Your task to perform on an android device: open app "DoorDash - Dasher" Image 0: 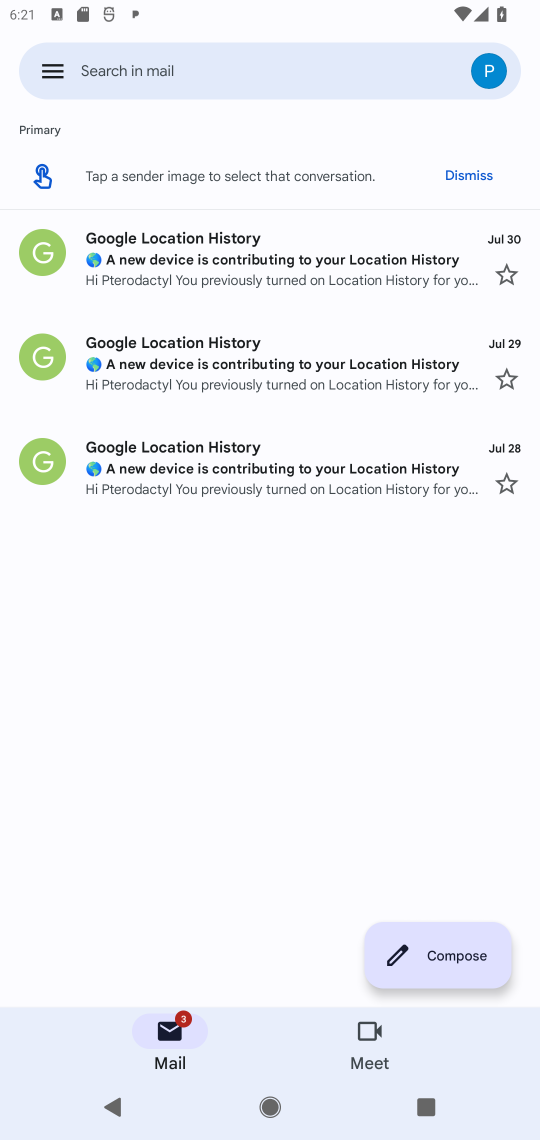
Step 0: press home button
Your task to perform on an android device: open app "DoorDash - Dasher" Image 1: 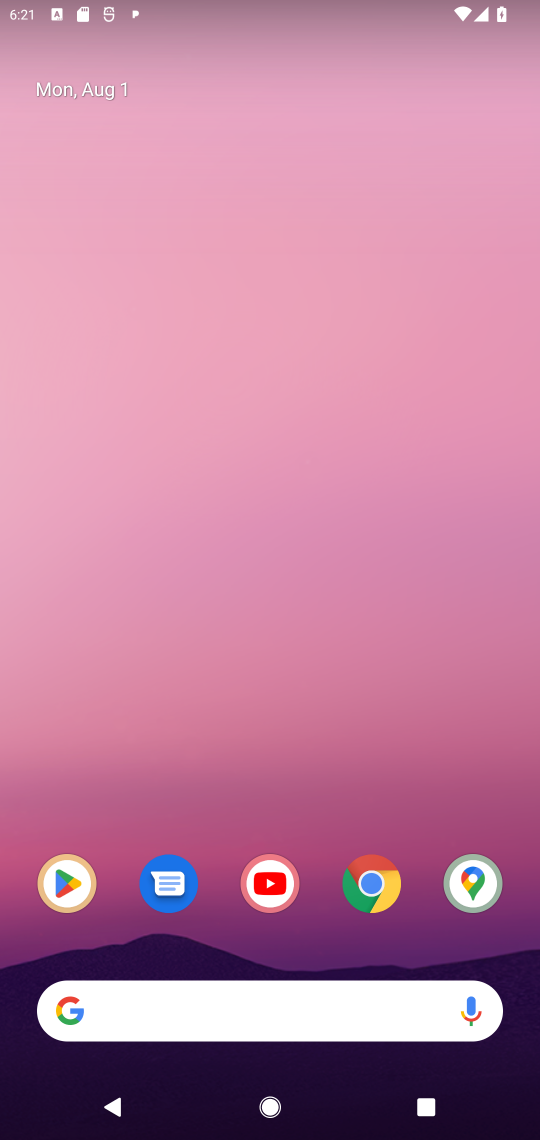
Step 1: click (59, 860)
Your task to perform on an android device: open app "DoorDash - Dasher" Image 2: 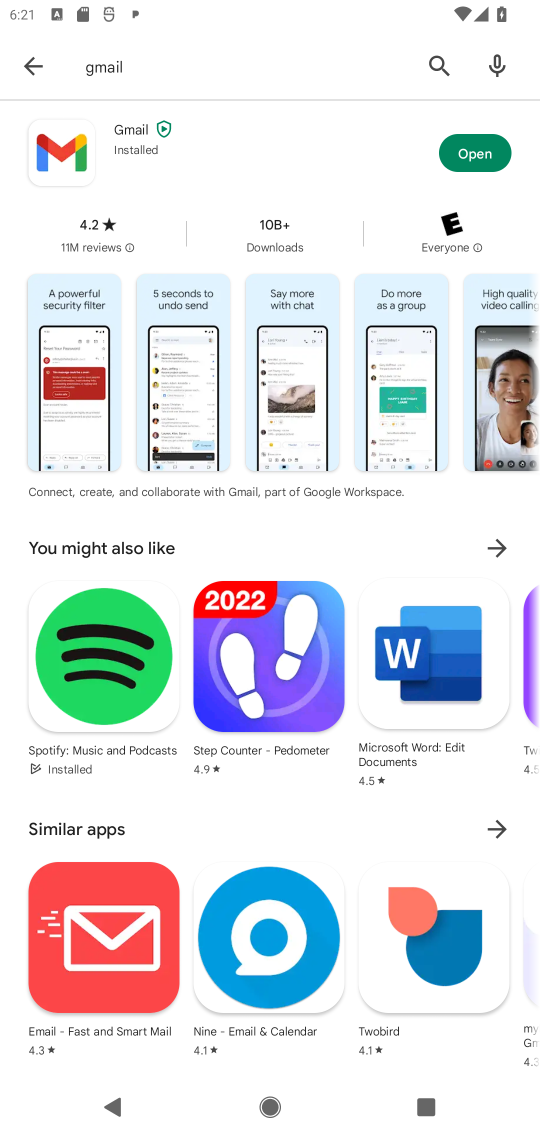
Step 2: click (36, 56)
Your task to perform on an android device: open app "DoorDash - Dasher" Image 3: 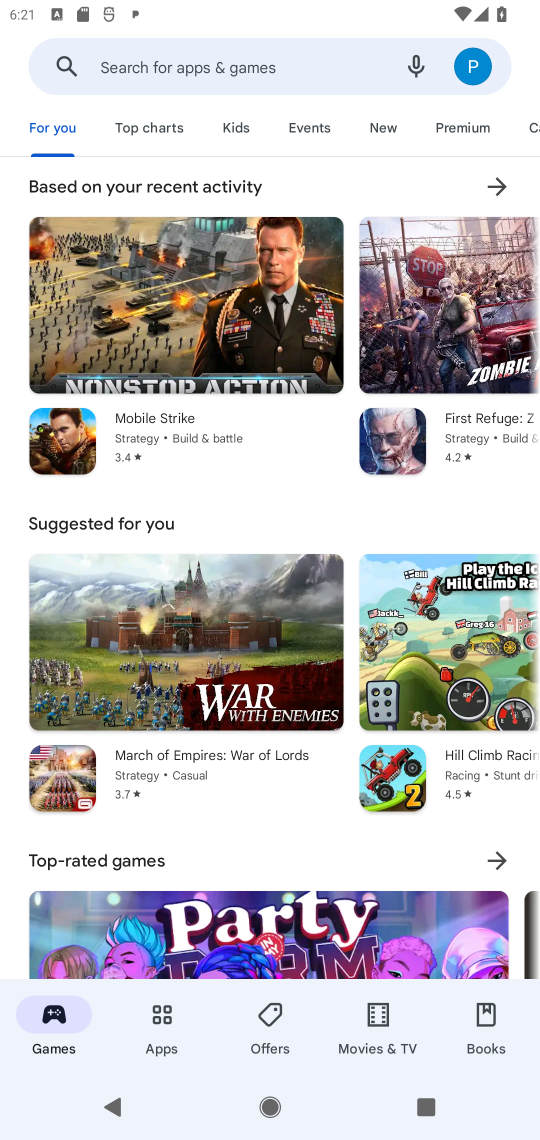
Step 3: click (207, 56)
Your task to perform on an android device: open app "DoorDash - Dasher" Image 4: 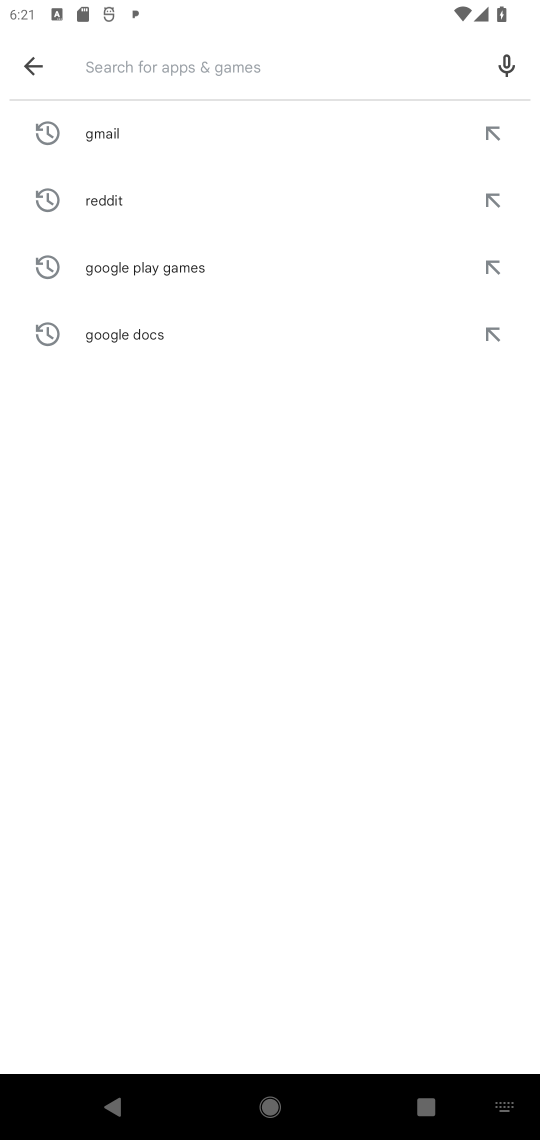
Step 4: type "DoorDash - Dasher"
Your task to perform on an android device: open app "DoorDash - Dasher" Image 5: 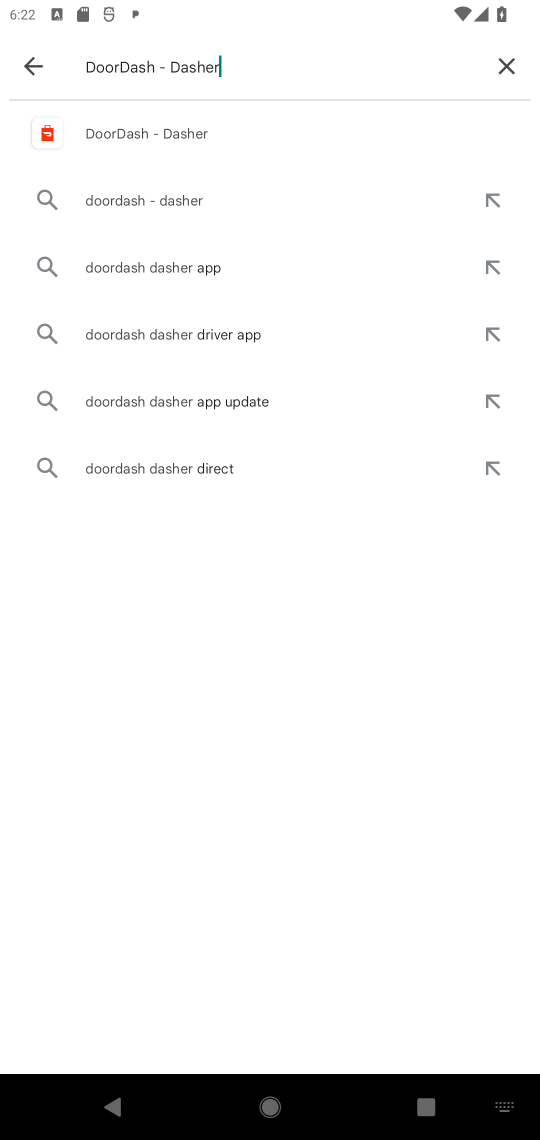
Step 5: click (158, 136)
Your task to perform on an android device: open app "DoorDash - Dasher" Image 6: 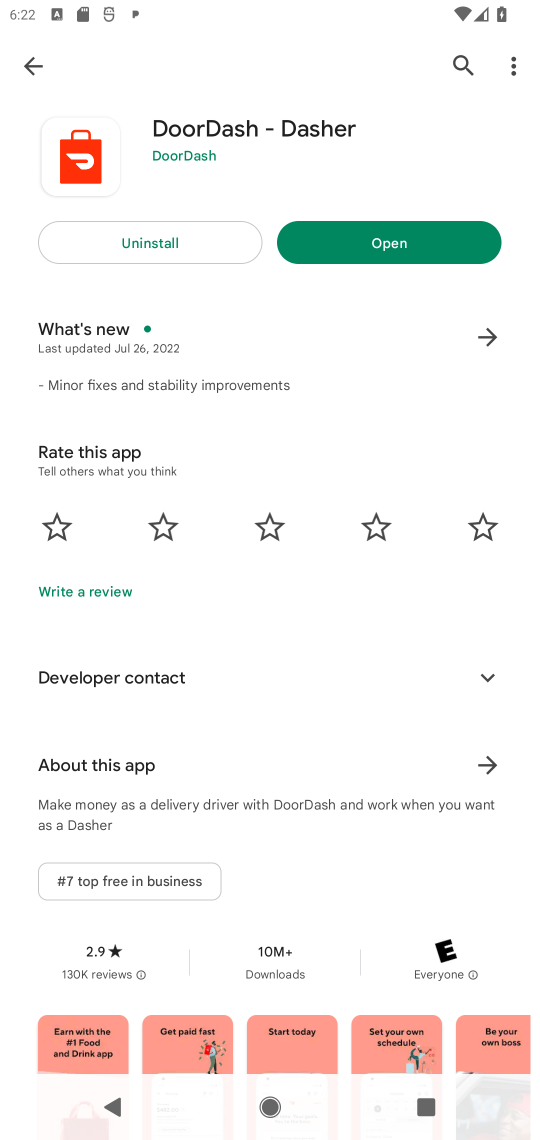
Step 6: click (399, 256)
Your task to perform on an android device: open app "DoorDash - Dasher" Image 7: 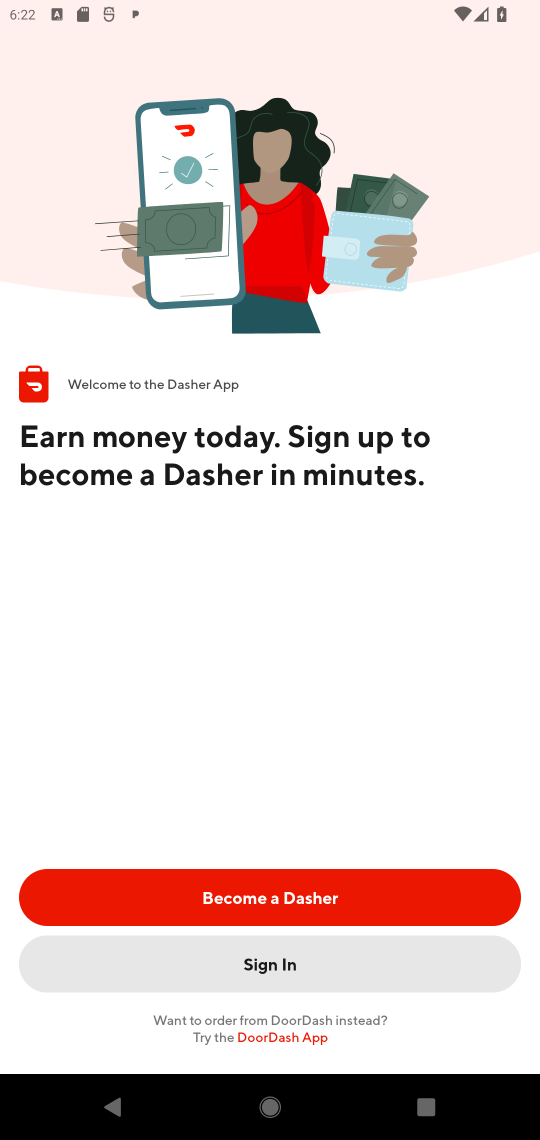
Step 7: task complete